Your task to perform on an android device: Search for the best selling phone on AliExpress Image 0: 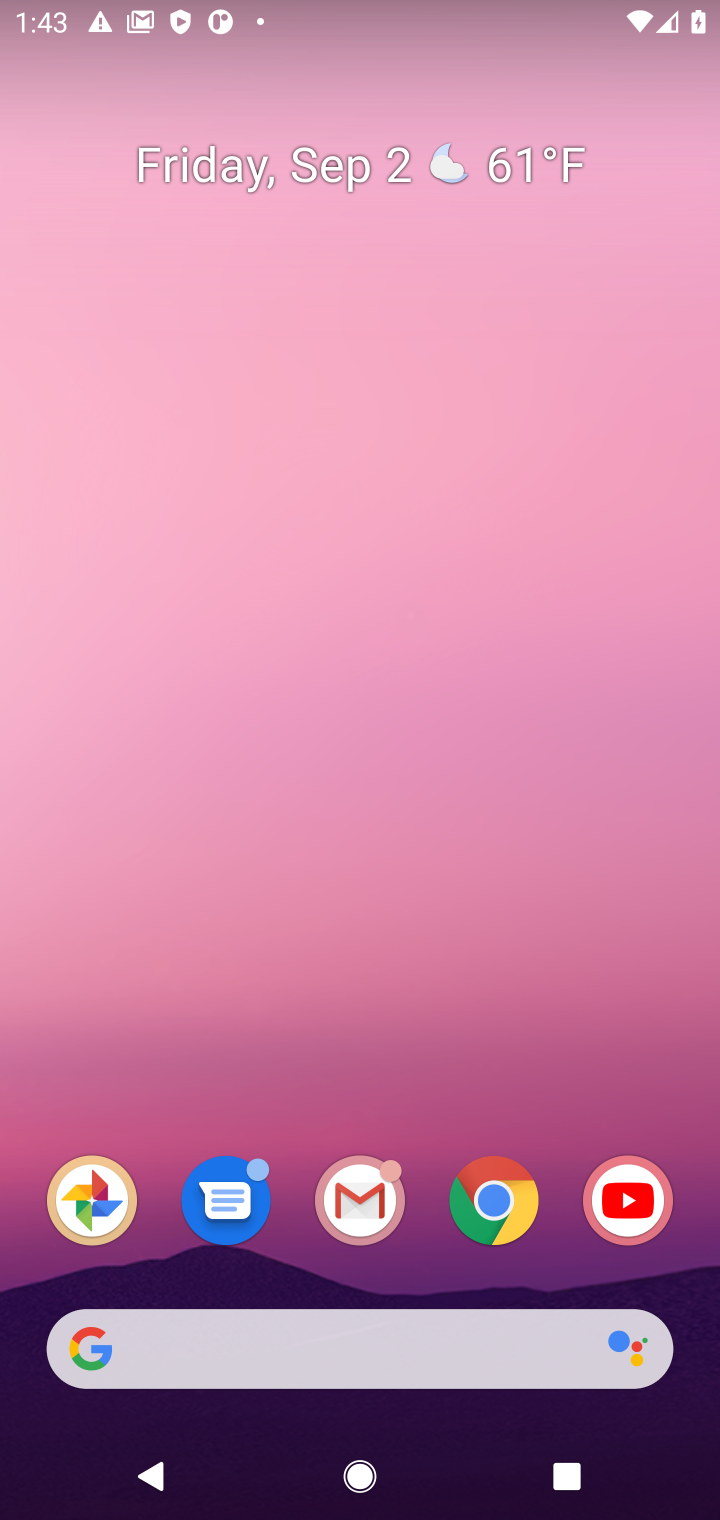
Step 0: click (483, 1208)
Your task to perform on an android device: Search for the best selling phone on AliExpress Image 1: 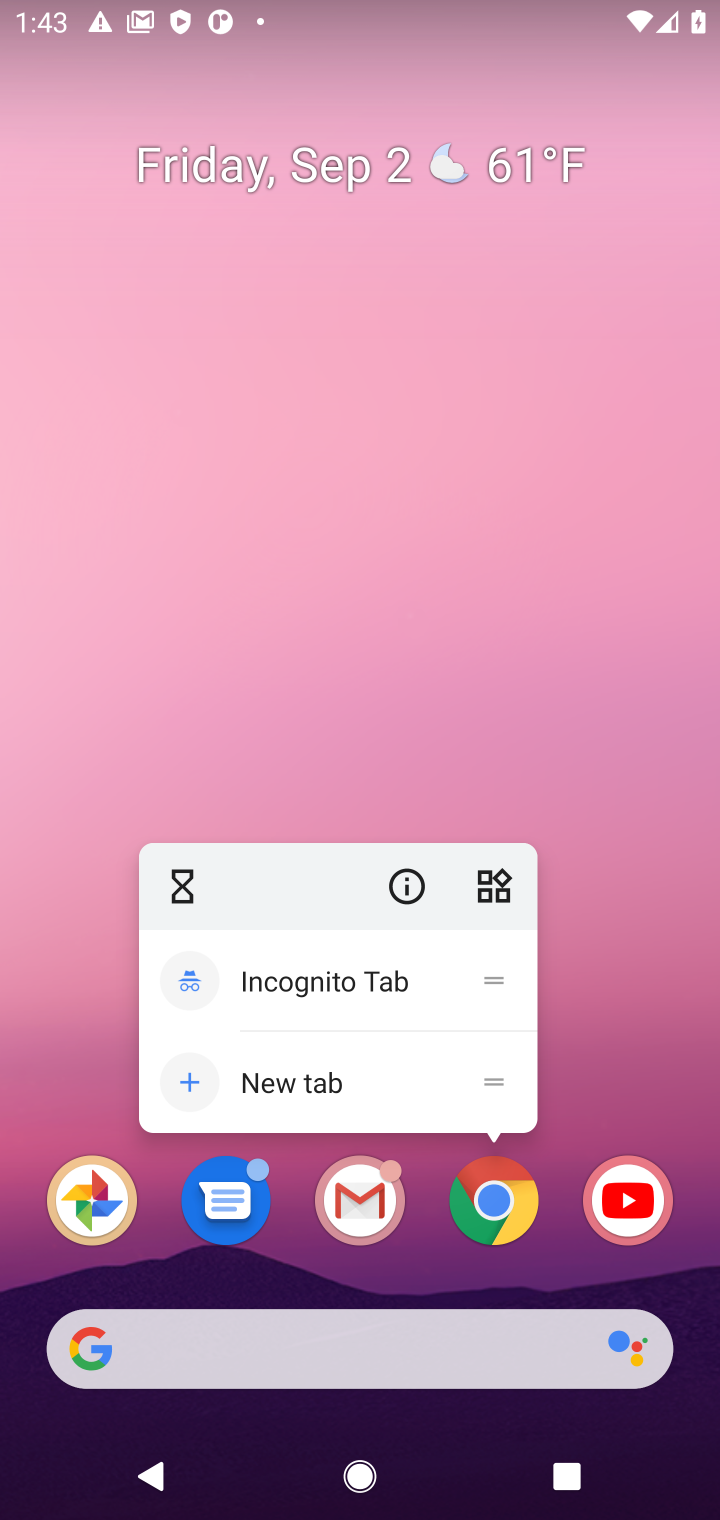
Step 1: click (481, 1215)
Your task to perform on an android device: Search for the best selling phone on AliExpress Image 2: 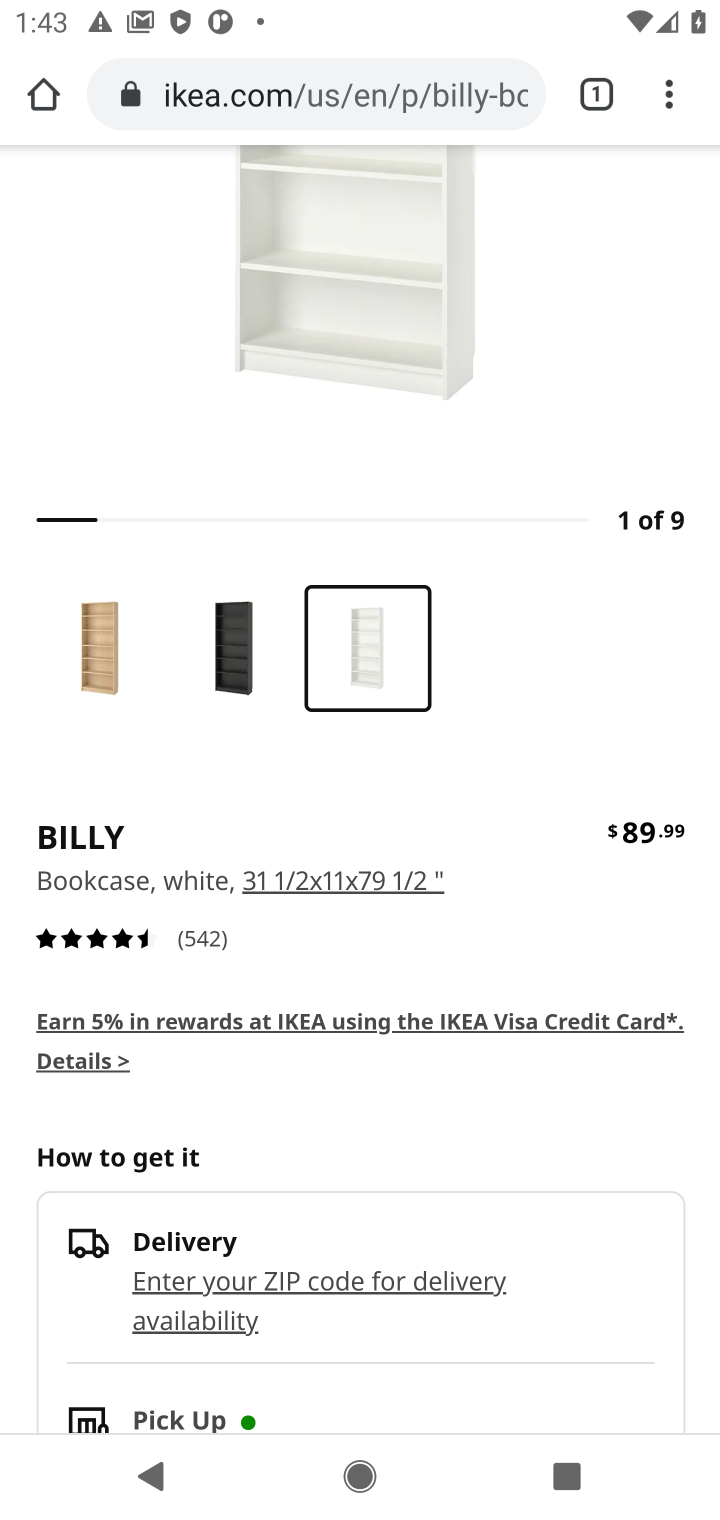
Step 2: click (411, 90)
Your task to perform on an android device: Search for the best selling phone on AliExpress Image 3: 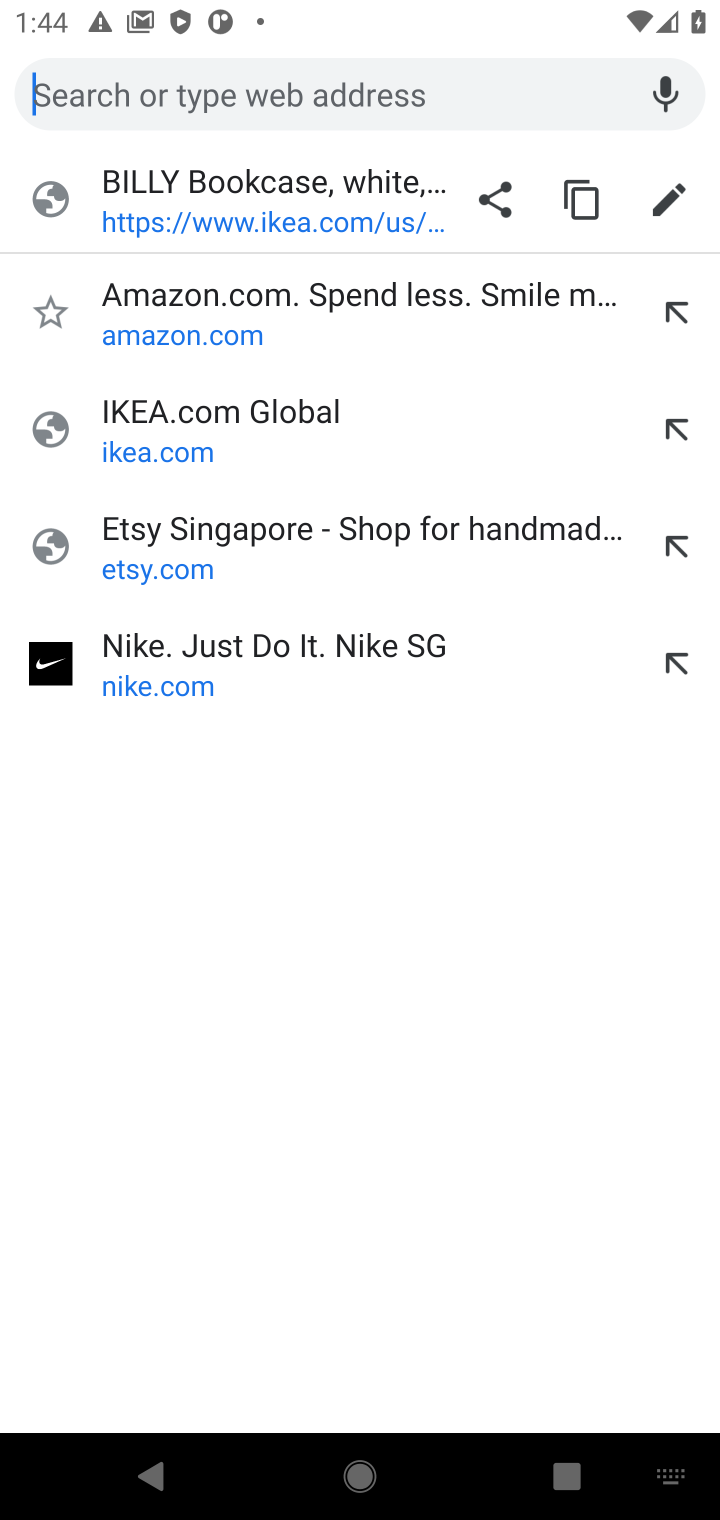
Step 3: type "AliExpress"
Your task to perform on an android device: Search for the best selling phone on AliExpress Image 4: 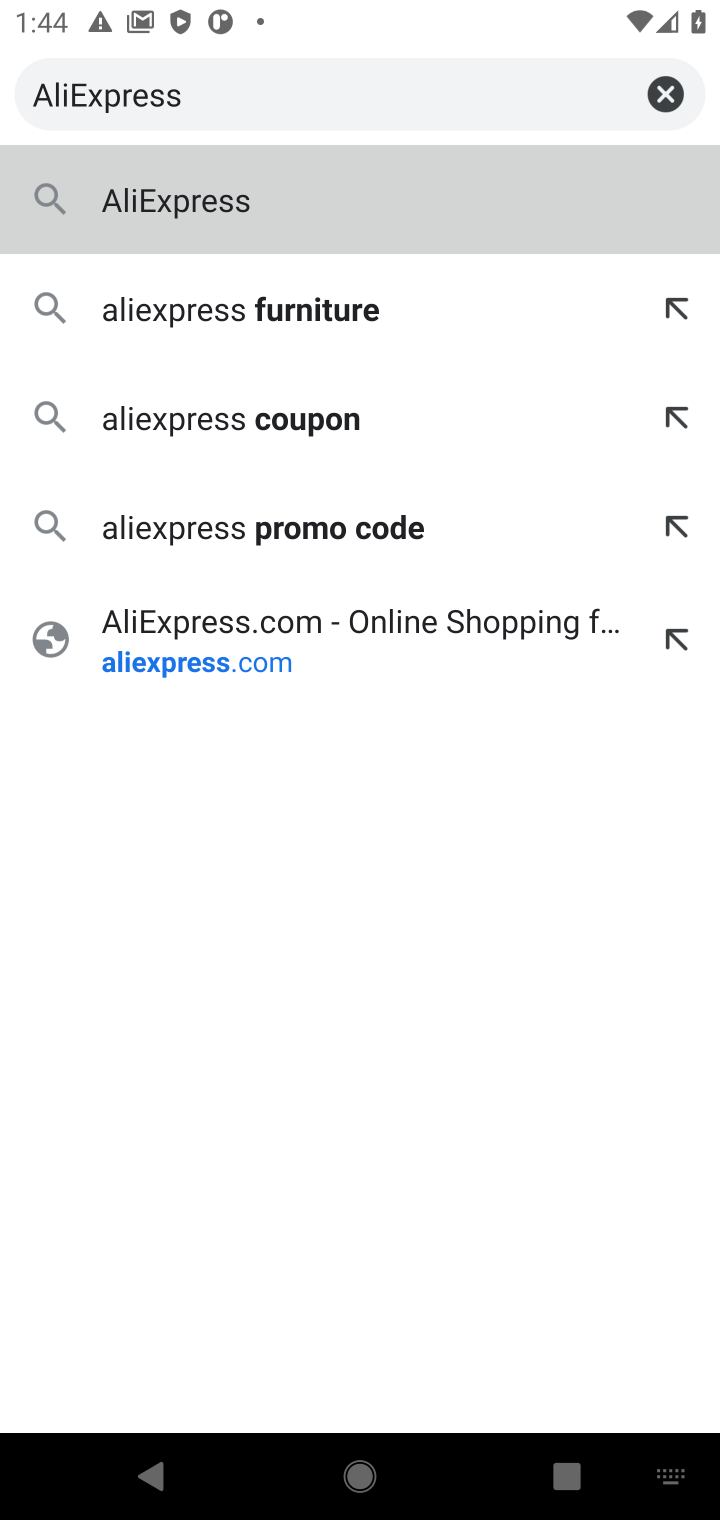
Step 4: press enter
Your task to perform on an android device: Search for the best selling phone on AliExpress Image 5: 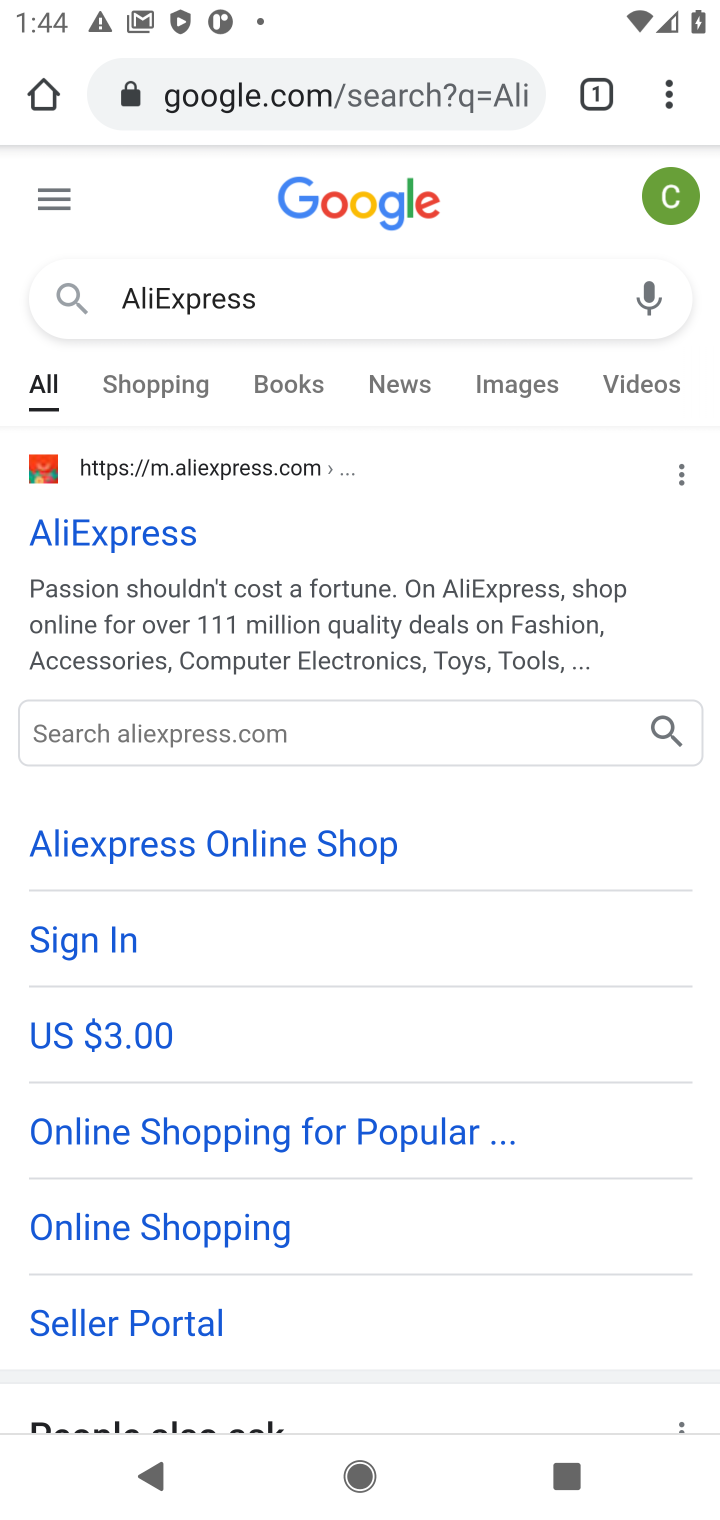
Step 5: click (157, 531)
Your task to perform on an android device: Search for the best selling phone on AliExpress Image 6: 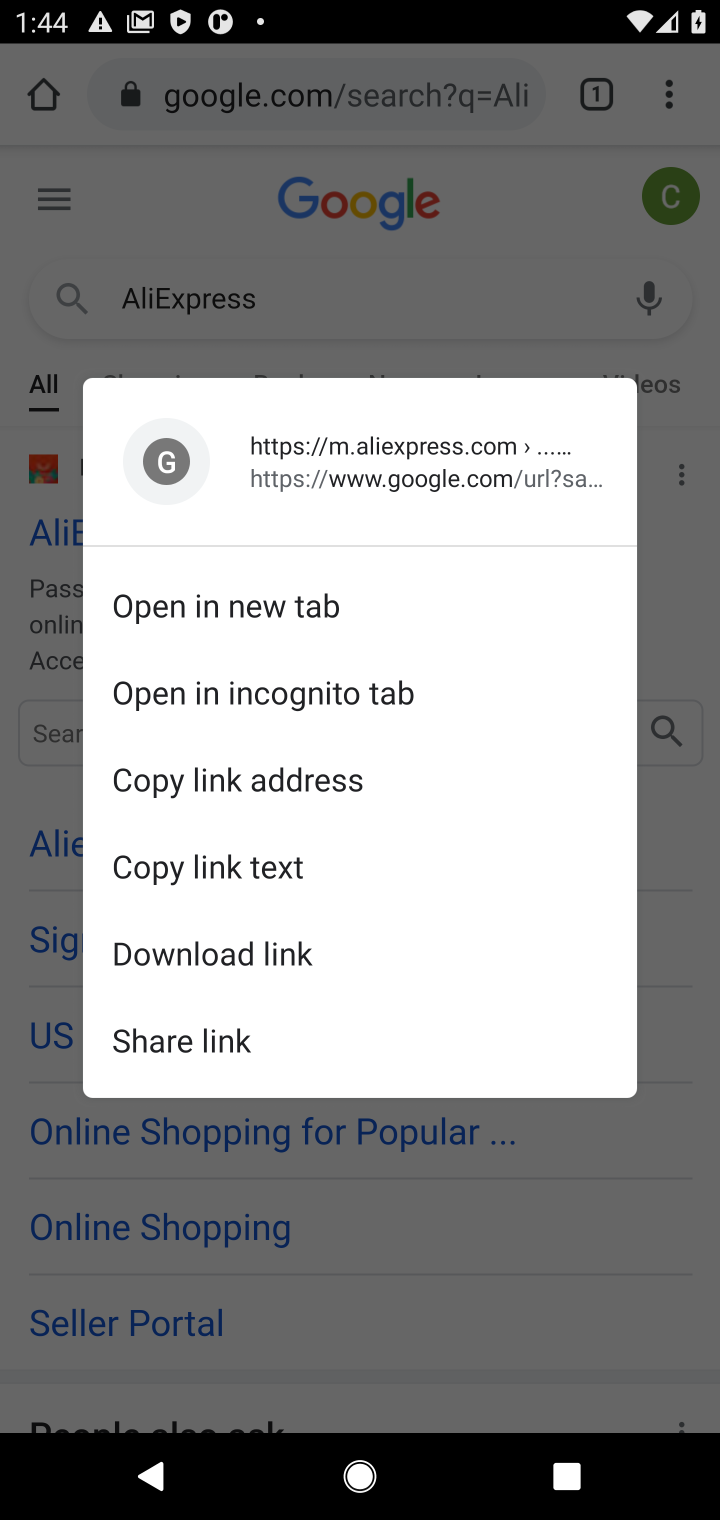
Step 6: click (659, 1174)
Your task to perform on an android device: Search for the best selling phone on AliExpress Image 7: 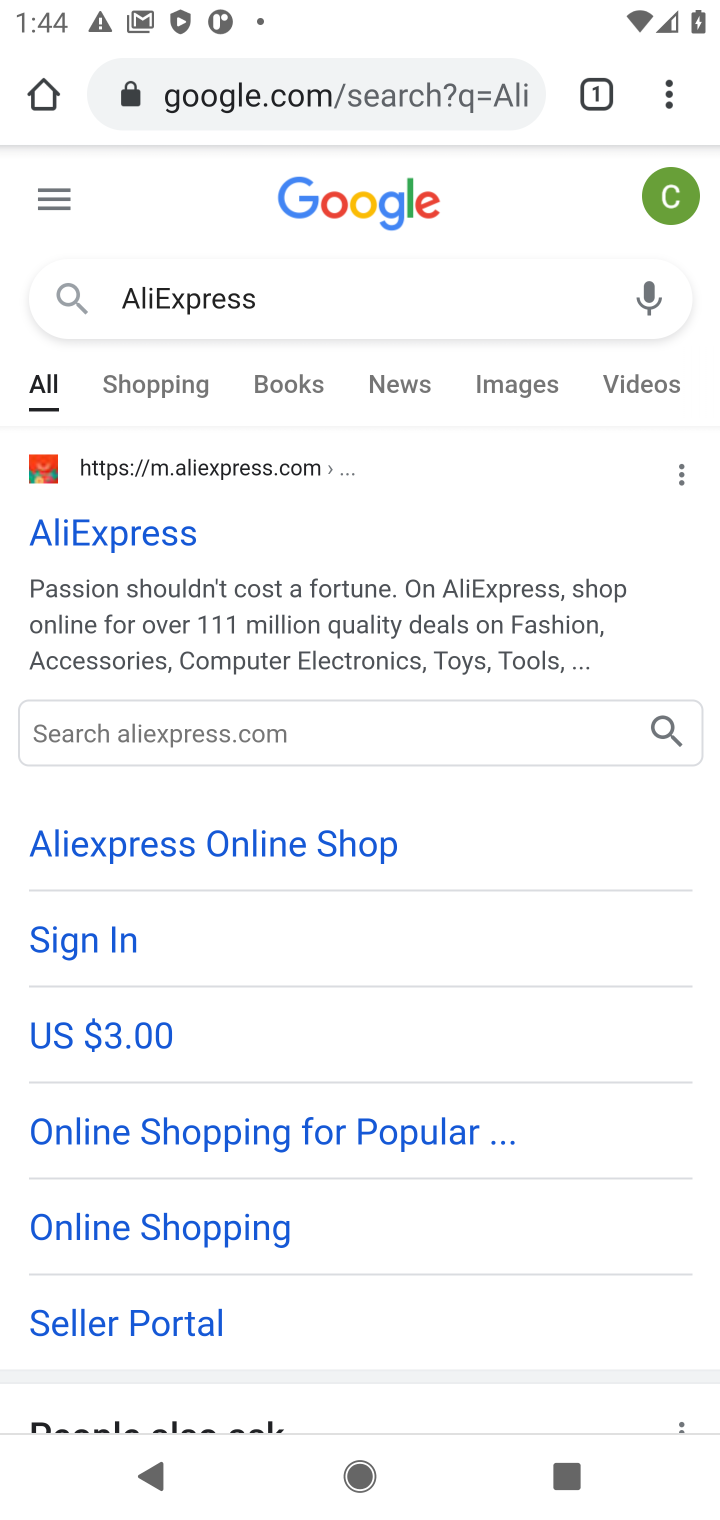
Step 7: click (86, 537)
Your task to perform on an android device: Search for the best selling phone on AliExpress Image 8: 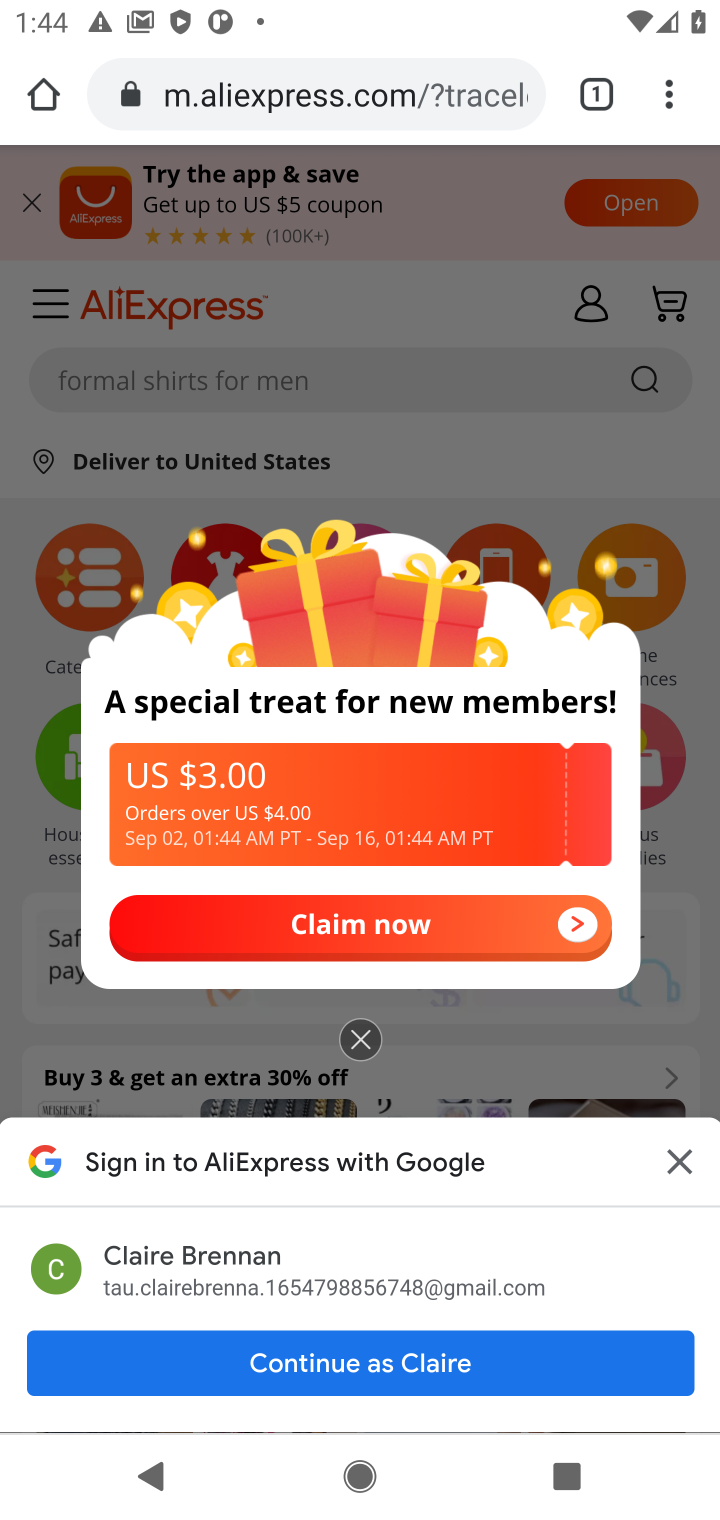
Step 8: click (386, 1370)
Your task to perform on an android device: Search for the best selling phone on AliExpress Image 9: 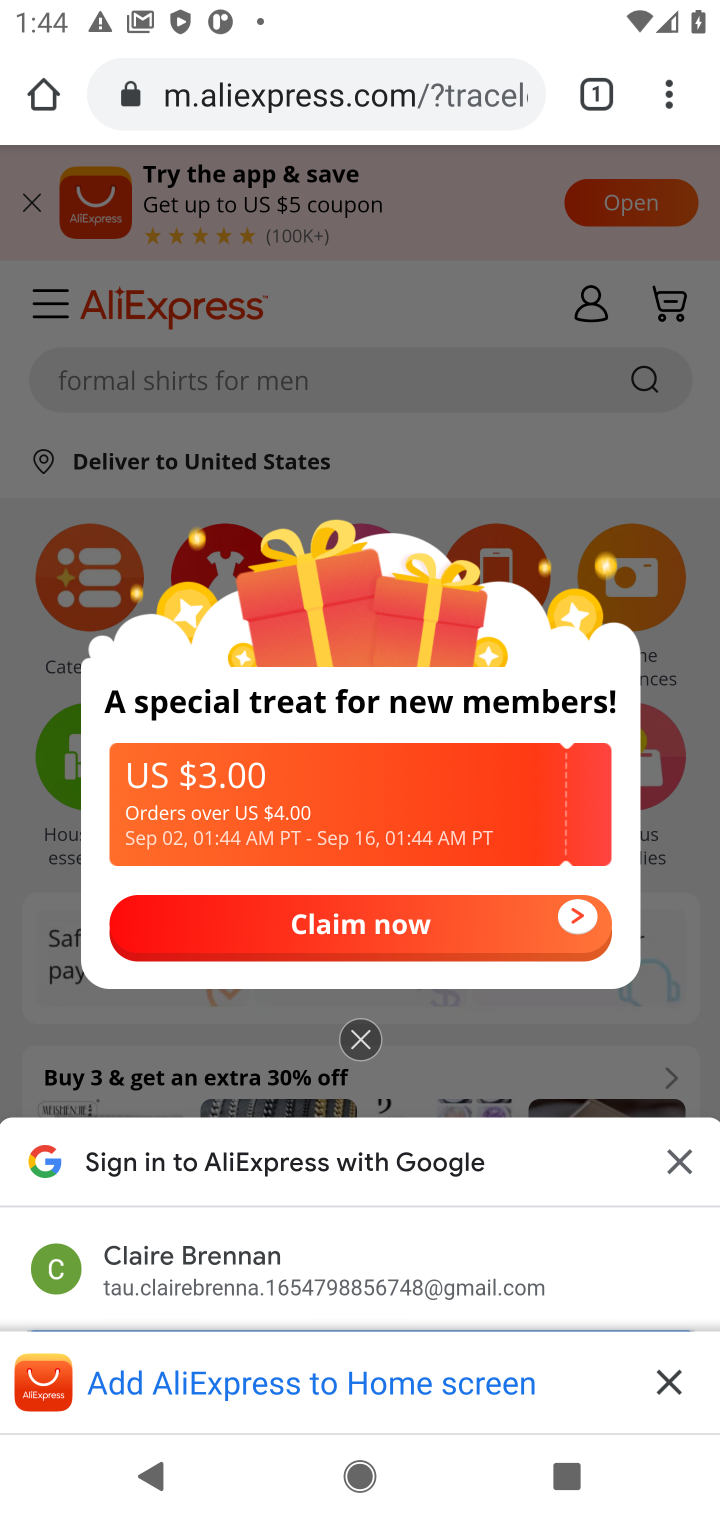
Step 9: click (671, 1388)
Your task to perform on an android device: Search for the best selling phone on AliExpress Image 10: 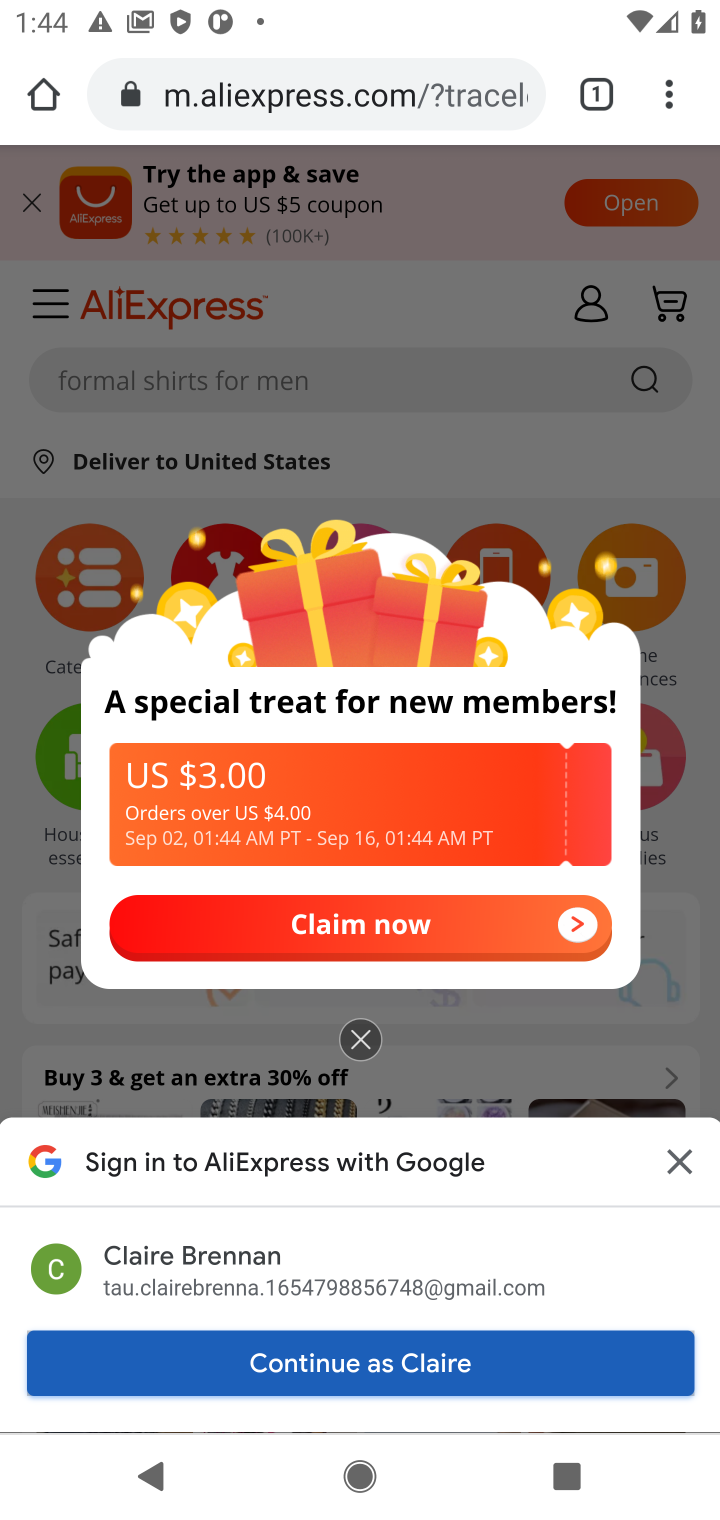
Step 10: click (385, 1354)
Your task to perform on an android device: Search for the best selling phone on AliExpress Image 11: 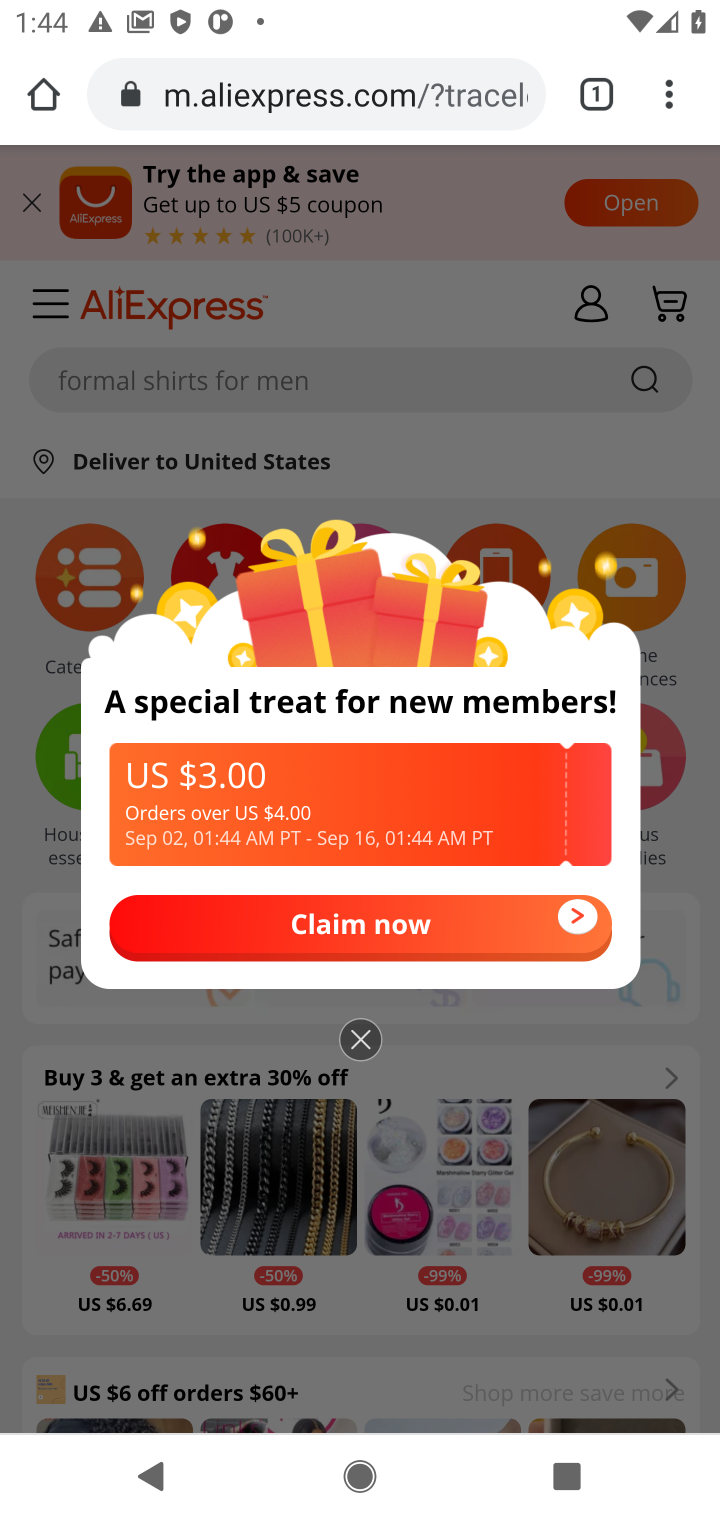
Step 11: click (178, 366)
Your task to perform on an android device: Search for the best selling phone on AliExpress Image 12: 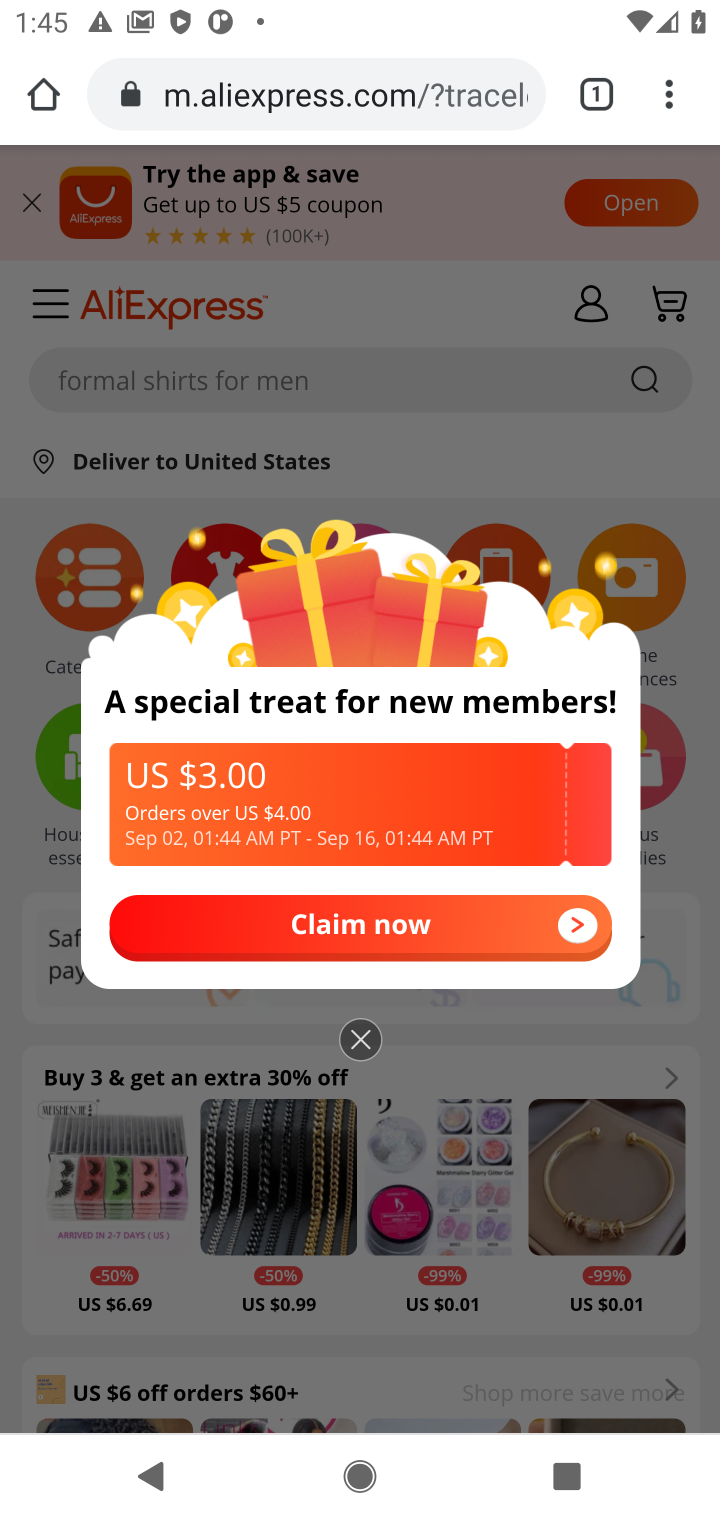
Step 12: click (177, 374)
Your task to perform on an android device: Search for the best selling phone on AliExpress Image 13: 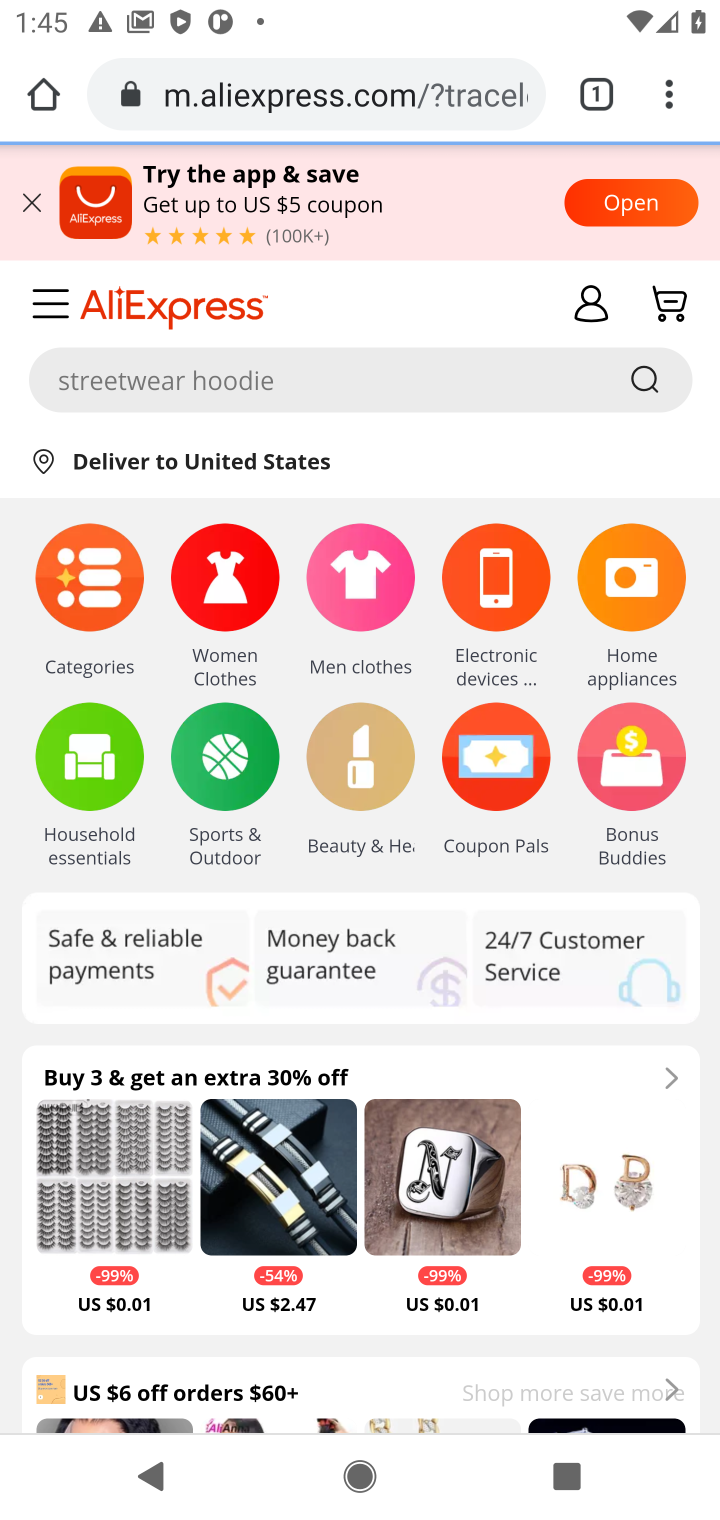
Step 13: click (334, 385)
Your task to perform on an android device: Search for the best selling phone on AliExpress Image 14: 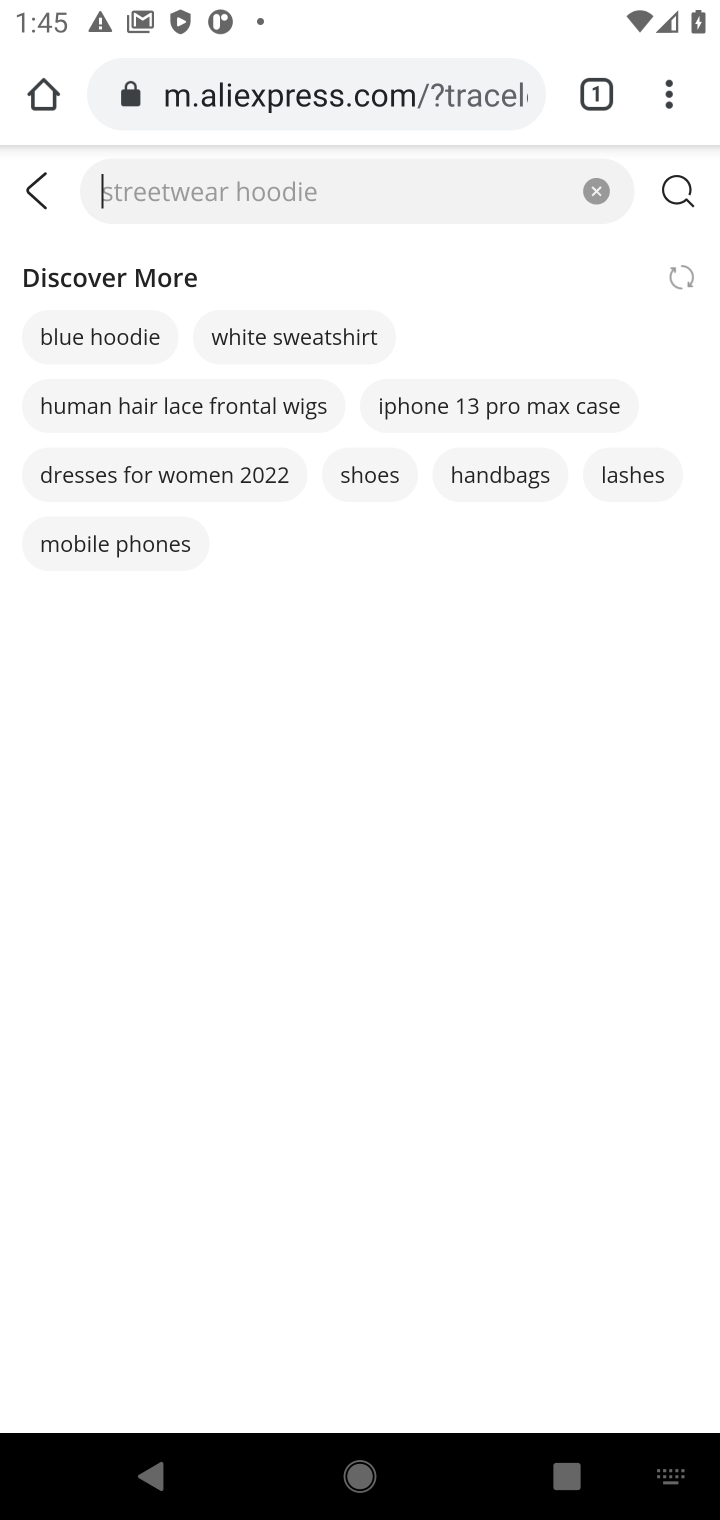
Step 14: press enter
Your task to perform on an android device: Search for the best selling phone on AliExpress Image 15: 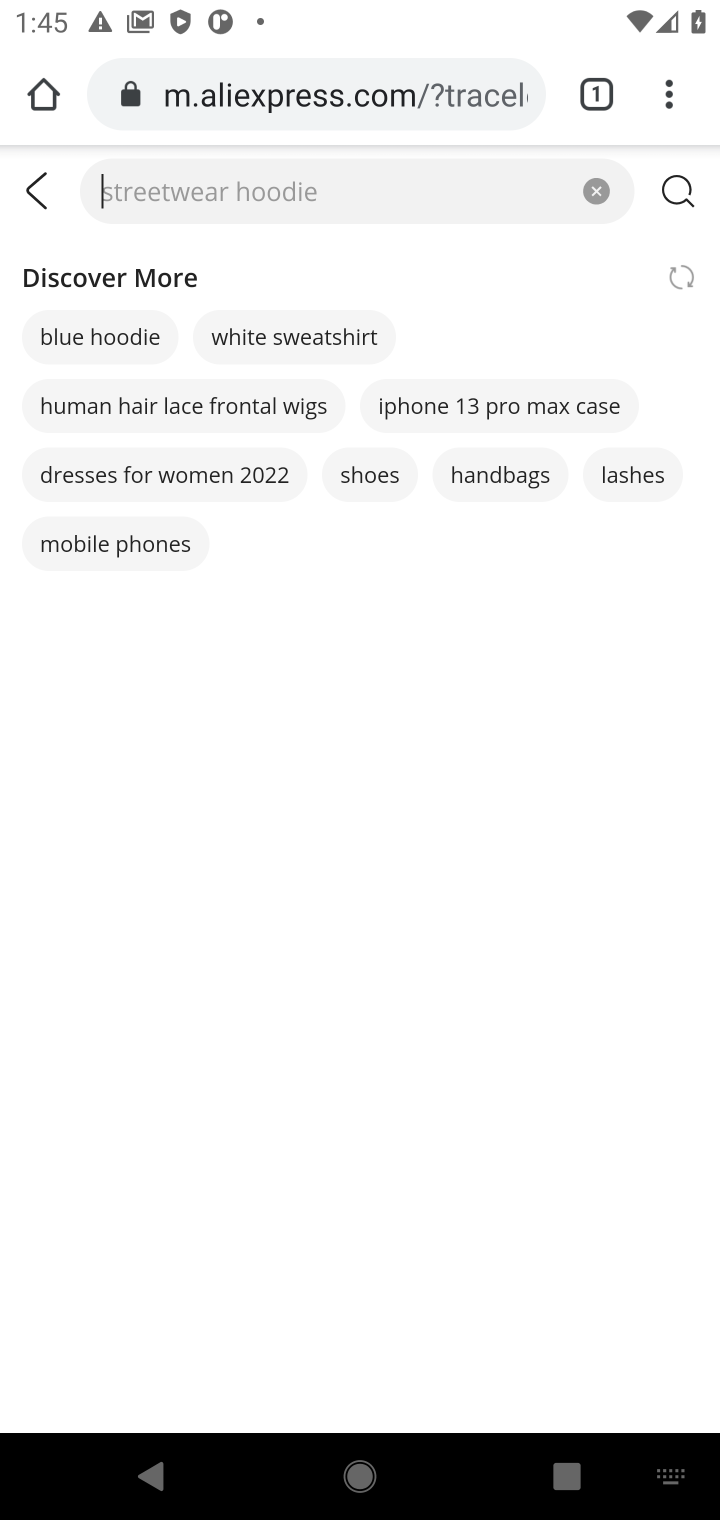
Step 15: type " phone "
Your task to perform on an android device: Search for the best selling phone on AliExpress Image 16: 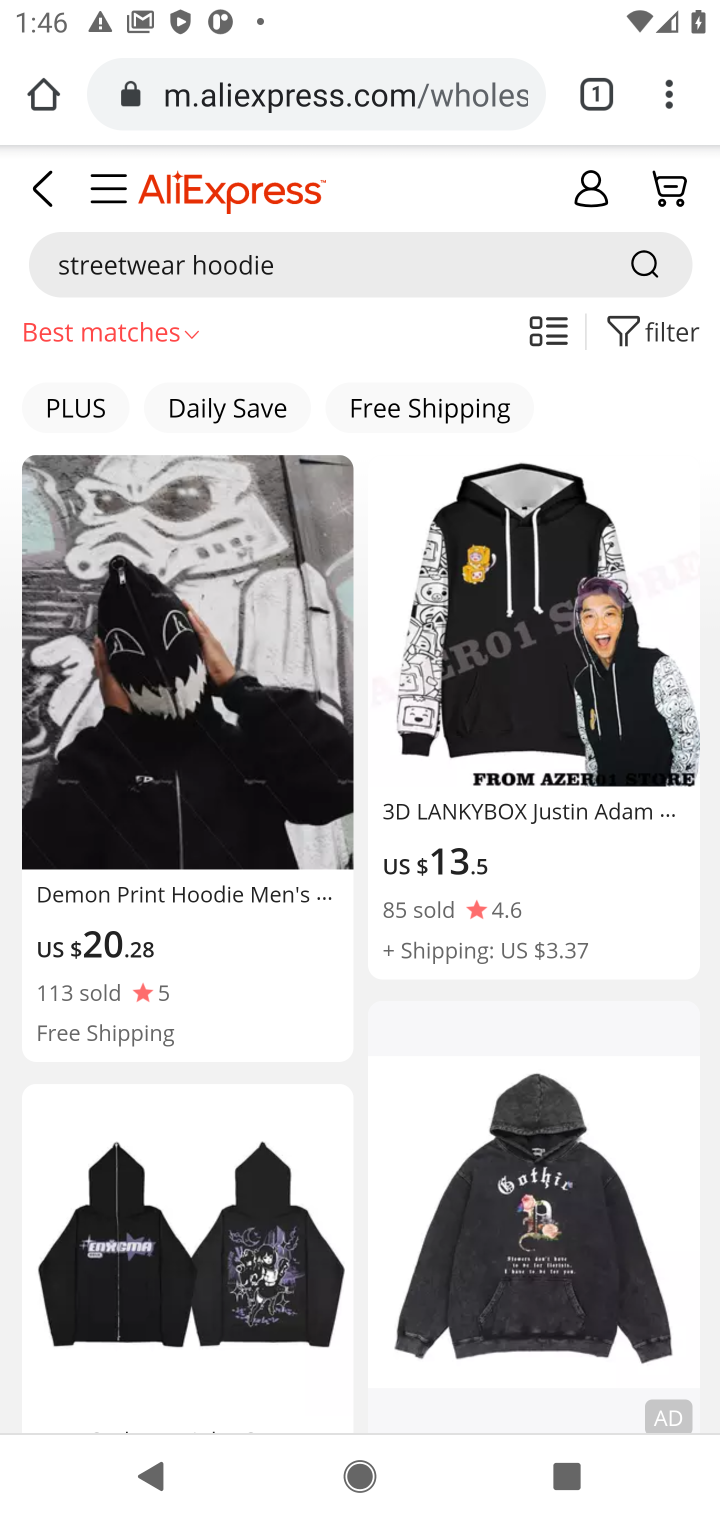
Step 16: click (316, 269)
Your task to perform on an android device: Search for the best selling phone on AliExpress Image 17: 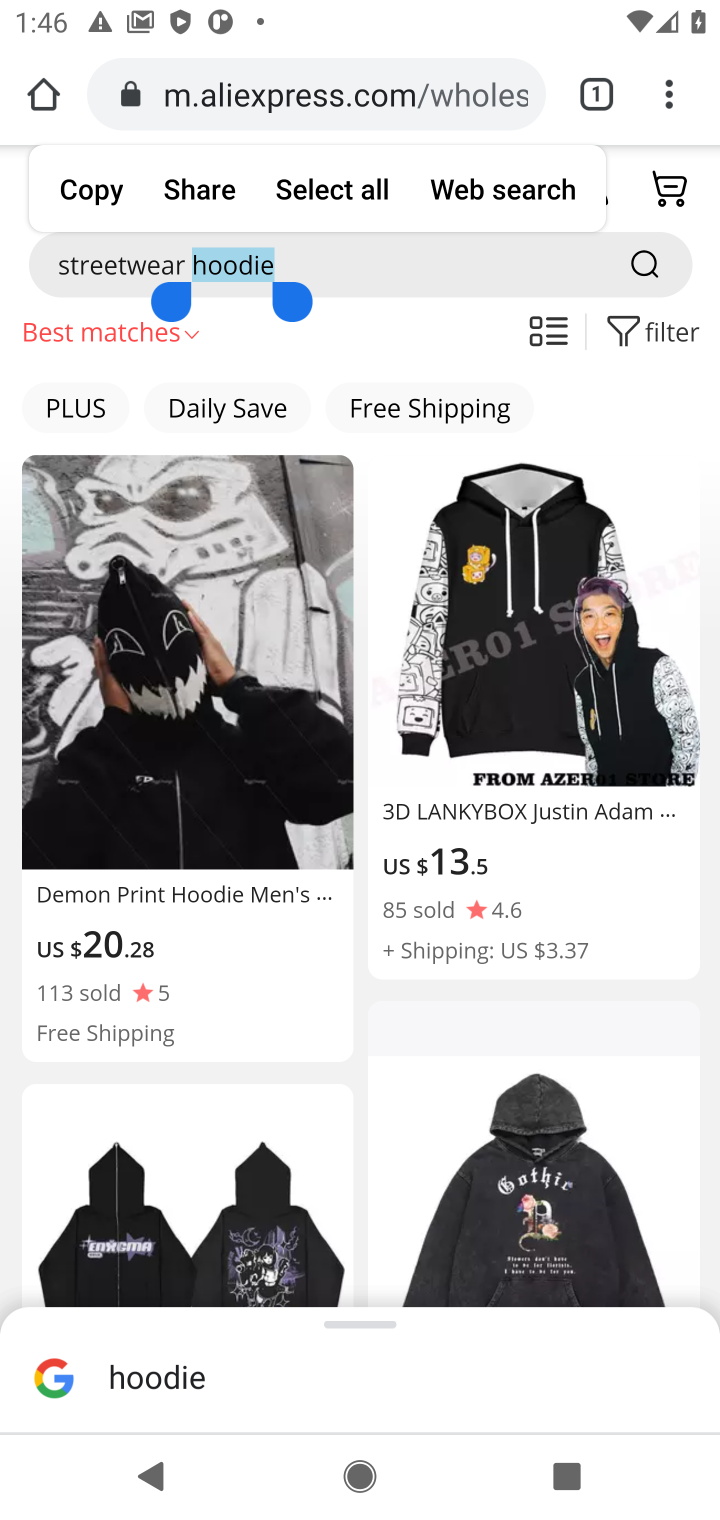
Step 17: click (633, 252)
Your task to perform on an android device: Search for the best selling phone on AliExpress Image 18: 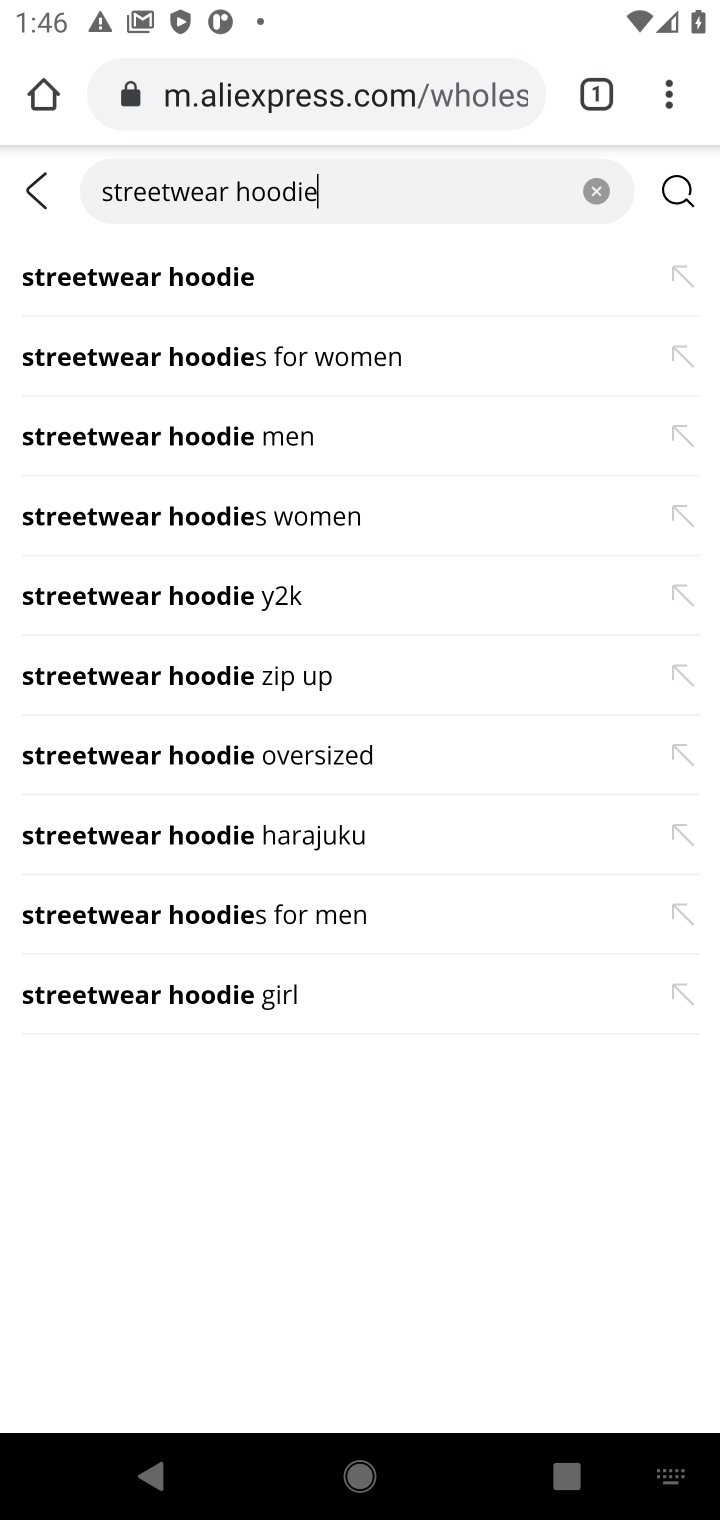
Step 18: click (594, 191)
Your task to perform on an android device: Search for the best selling phone on AliExpress Image 19: 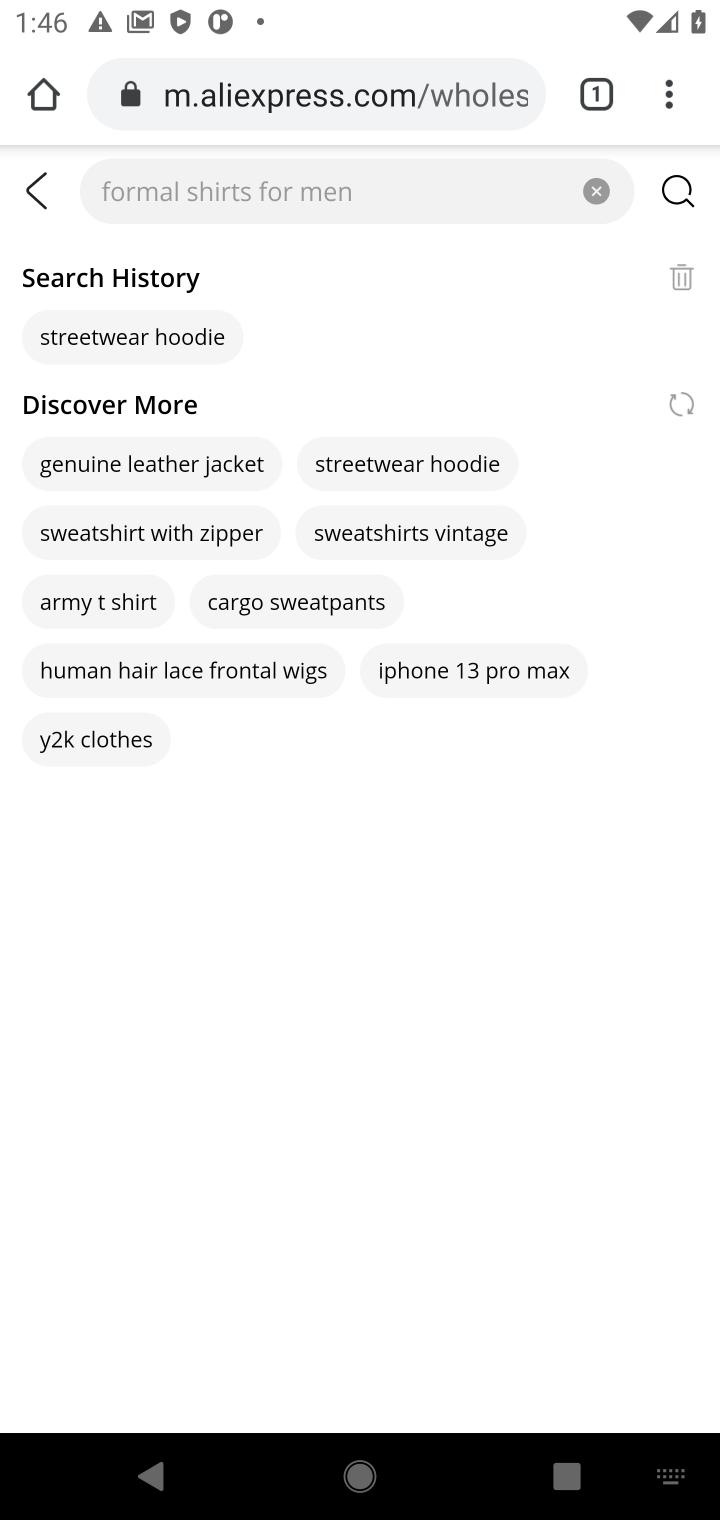
Step 19: type " phone"
Your task to perform on an android device: Search for the best selling phone on AliExpress Image 20: 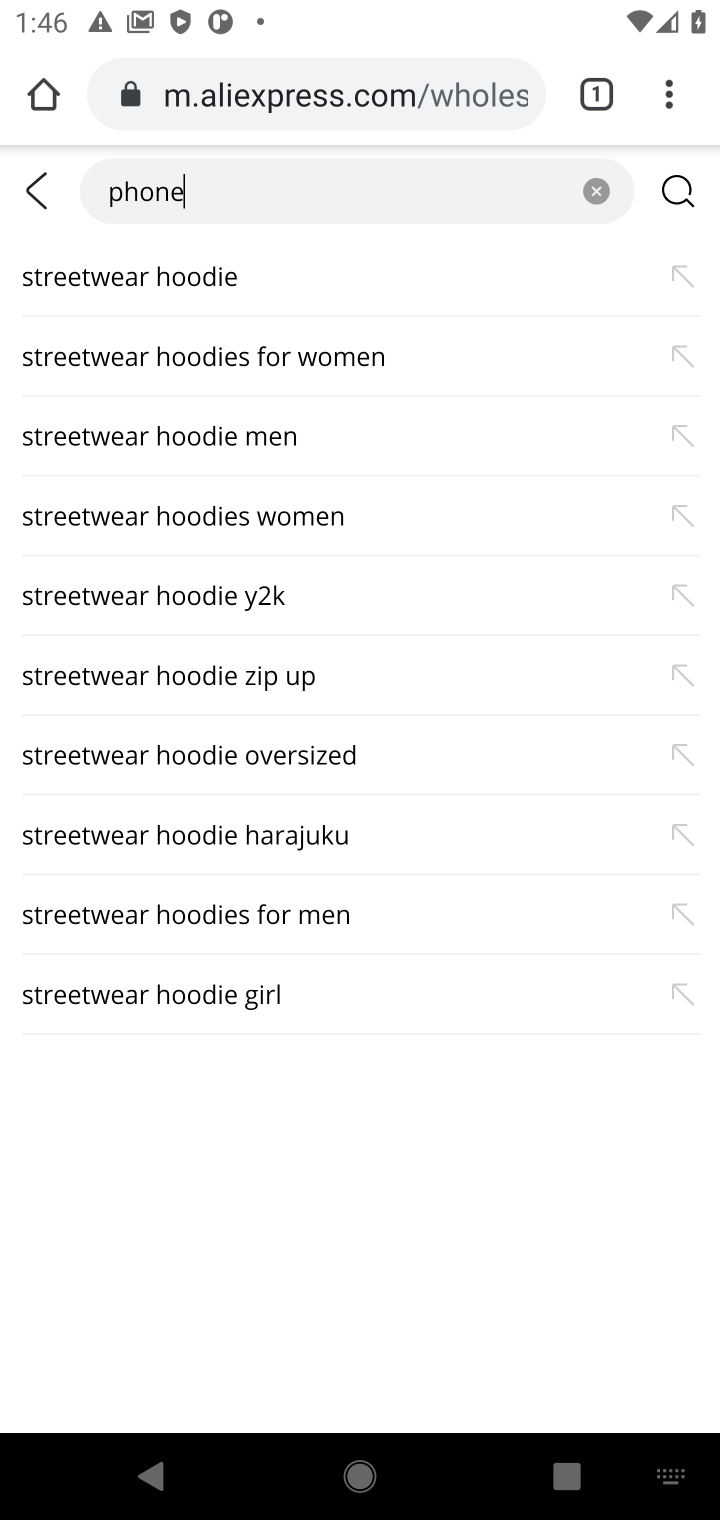
Step 20: press enter
Your task to perform on an android device: Search for the best selling phone on AliExpress Image 21: 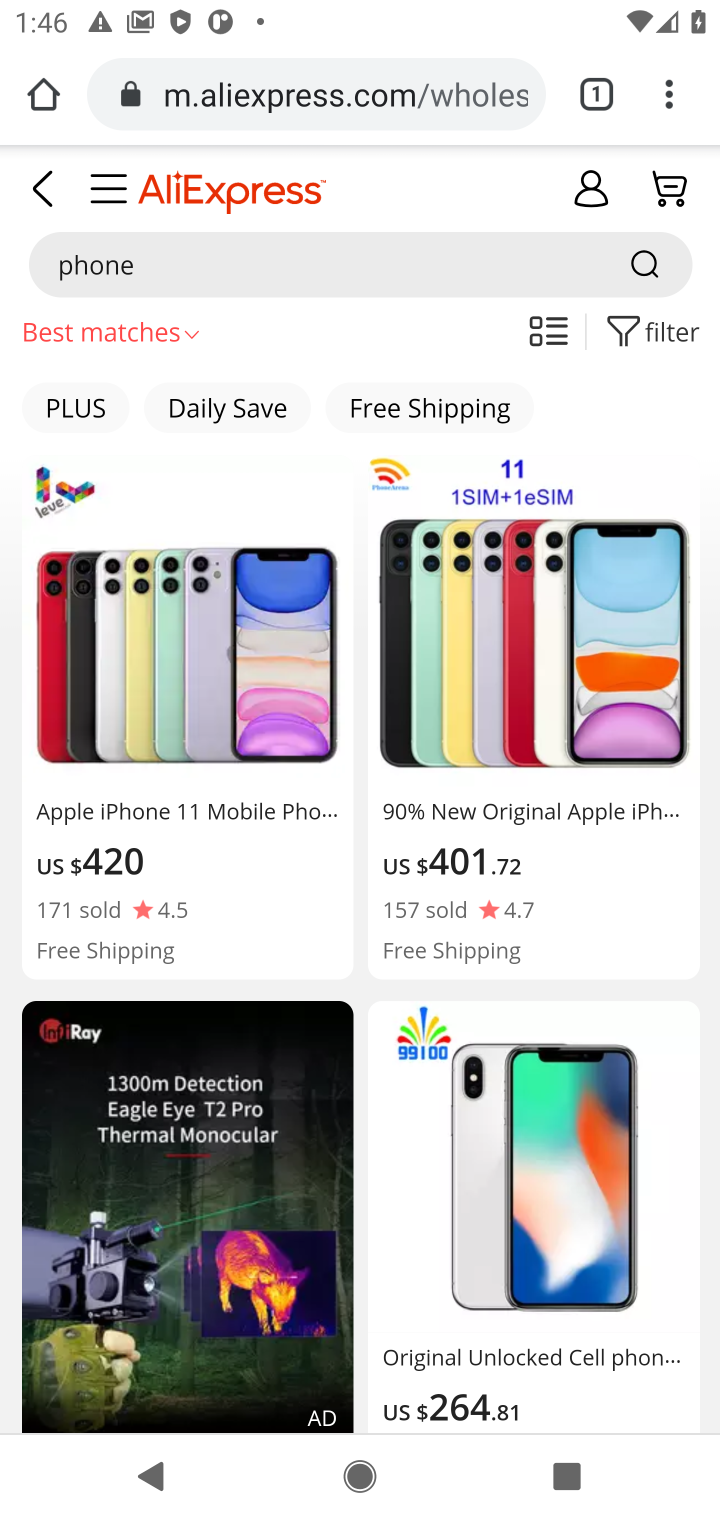
Step 21: drag from (337, 1287) to (647, 361)
Your task to perform on an android device: Search for the best selling phone on AliExpress Image 22: 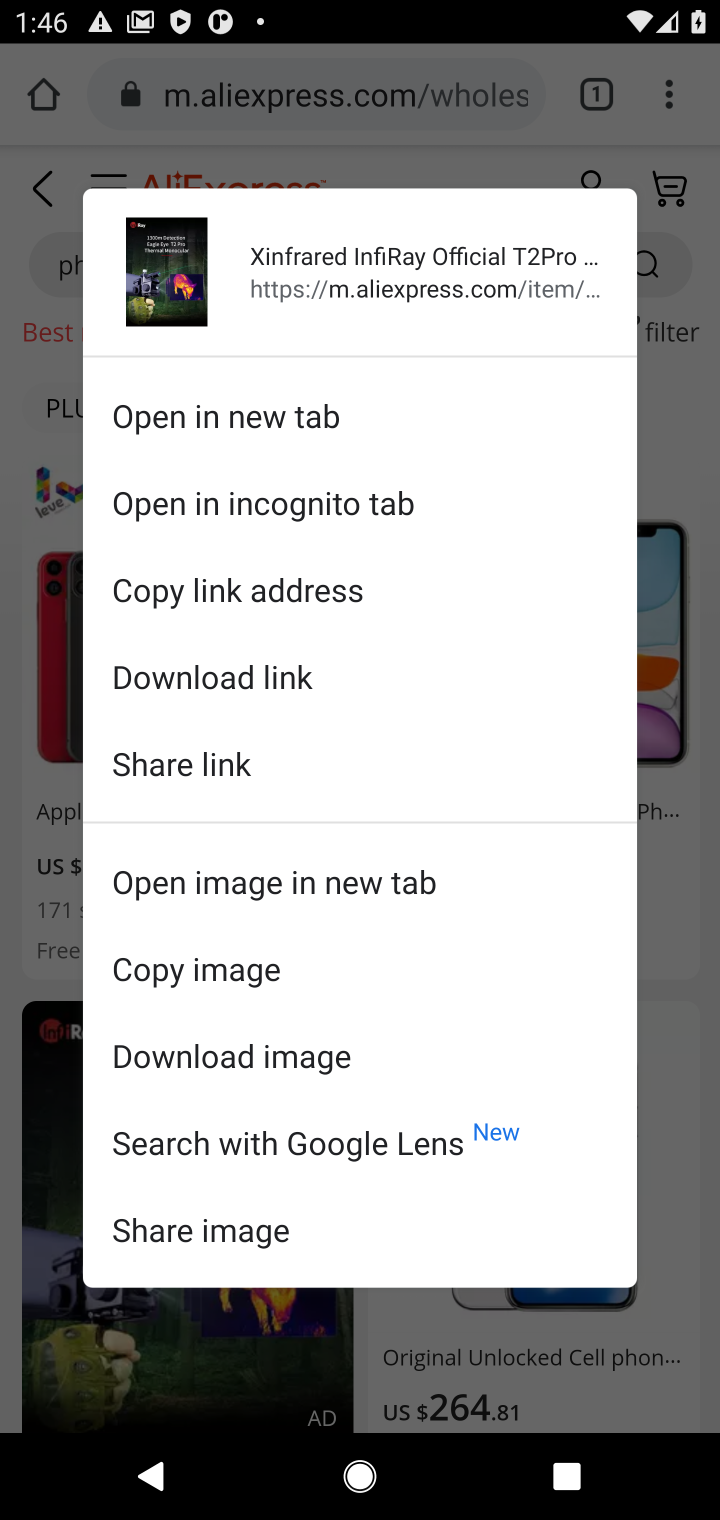
Step 22: click (662, 1029)
Your task to perform on an android device: Search for the best selling phone on AliExpress Image 23: 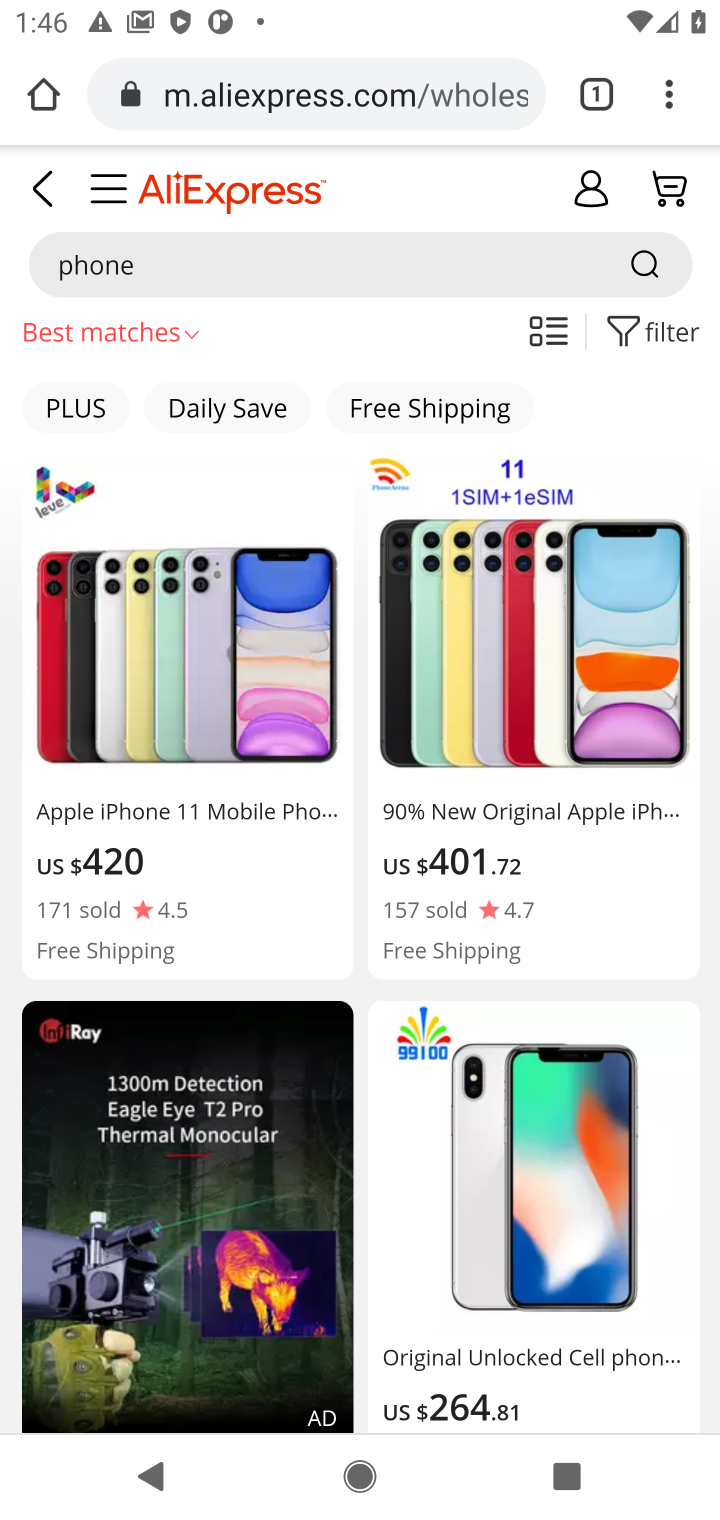
Step 23: task complete